Your task to perform on an android device: check battery use Image 0: 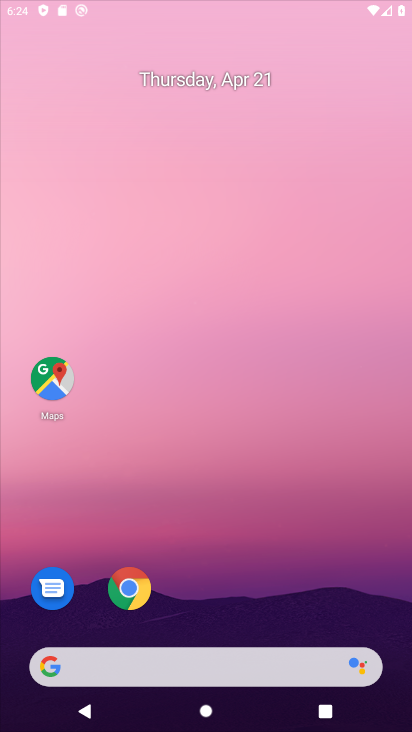
Step 0: drag from (285, 600) to (168, 281)
Your task to perform on an android device: check battery use Image 1: 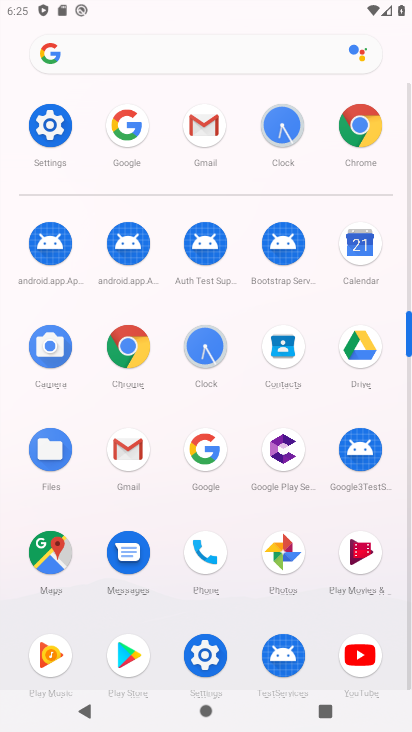
Step 1: click (208, 638)
Your task to perform on an android device: check battery use Image 2: 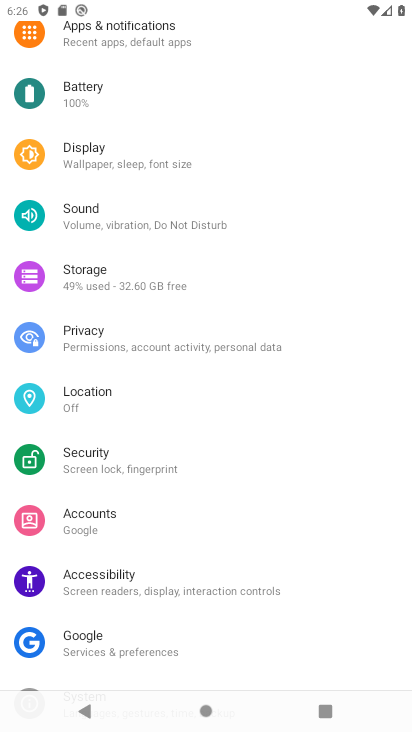
Step 2: click (104, 112)
Your task to perform on an android device: check battery use Image 3: 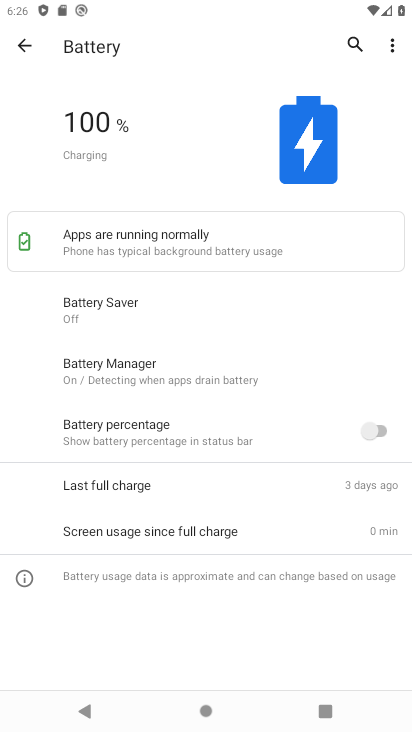
Step 3: task complete